Your task to perform on an android device: Set the phone to "Do not disturb". Image 0: 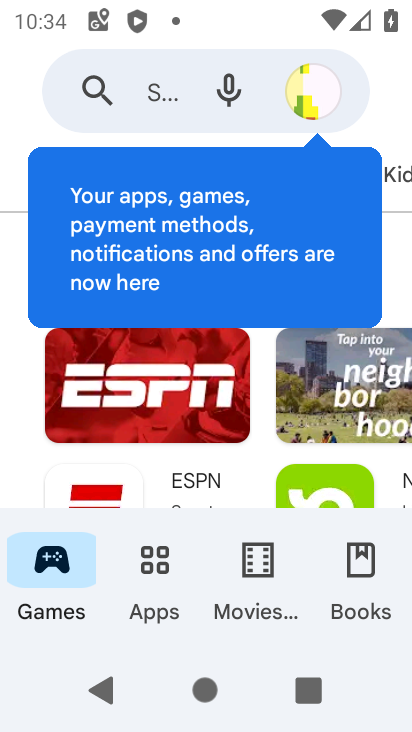
Step 0: press home button
Your task to perform on an android device: Set the phone to "Do not disturb". Image 1: 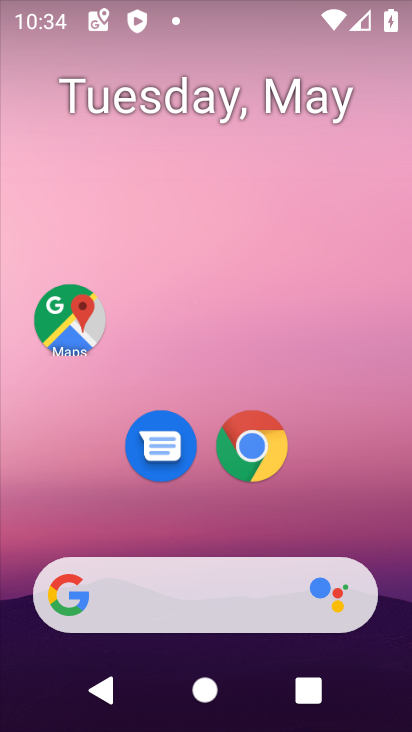
Step 1: drag from (216, 526) to (302, 85)
Your task to perform on an android device: Set the phone to "Do not disturb". Image 2: 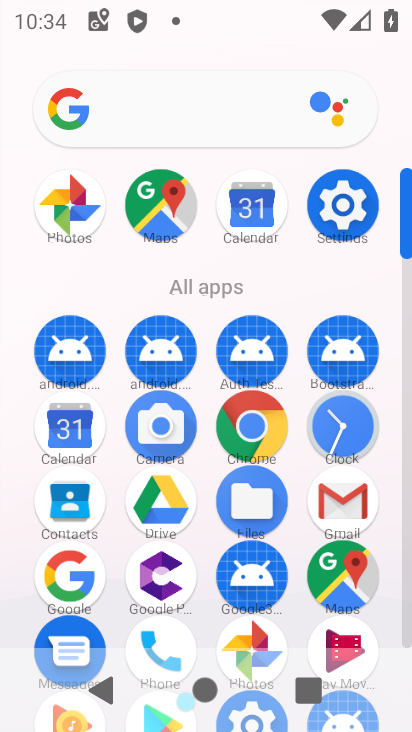
Step 2: click (350, 222)
Your task to perform on an android device: Set the phone to "Do not disturb". Image 3: 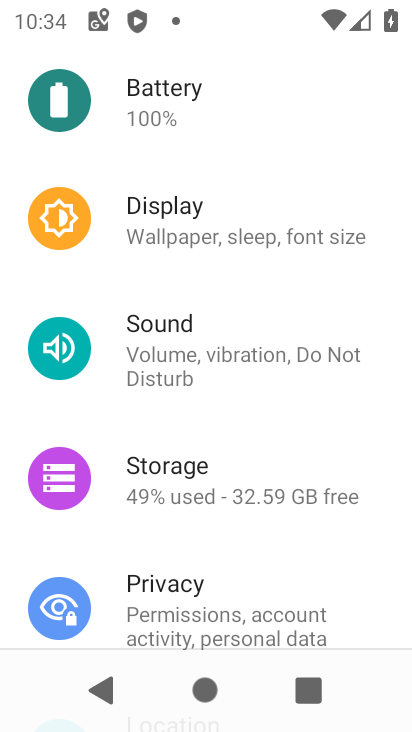
Step 3: click (168, 336)
Your task to perform on an android device: Set the phone to "Do not disturb". Image 4: 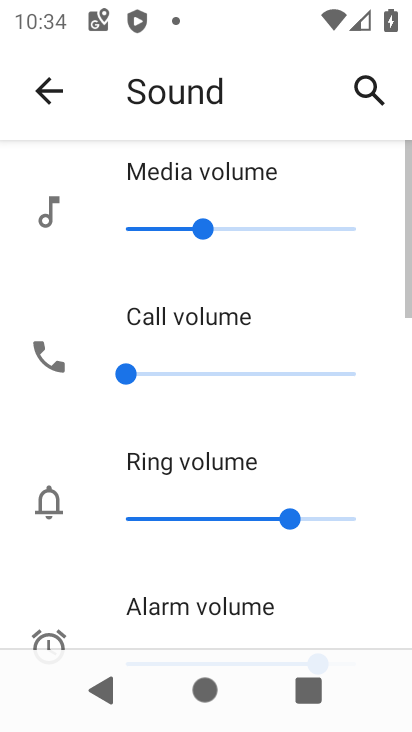
Step 4: drag from (189, 478) to (286, 113)
Your task to perform on an android device: Set the phone to "Do not disturb". Image 5: 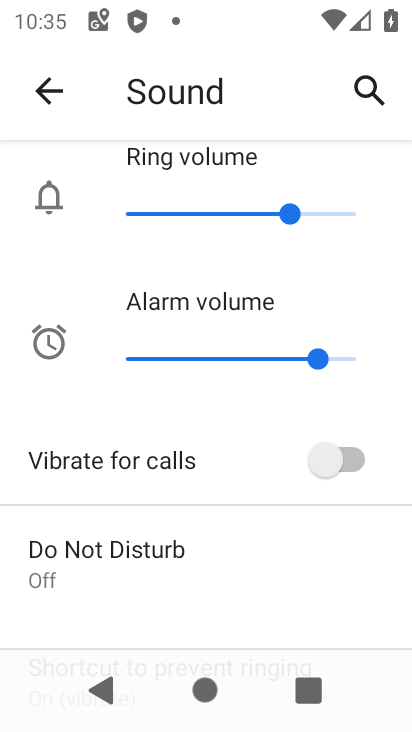
Step 5: drag from (149, 492) to (162, 406)
Your task to perform on an android device: Set the phone to "Do not disturb". Image 6: 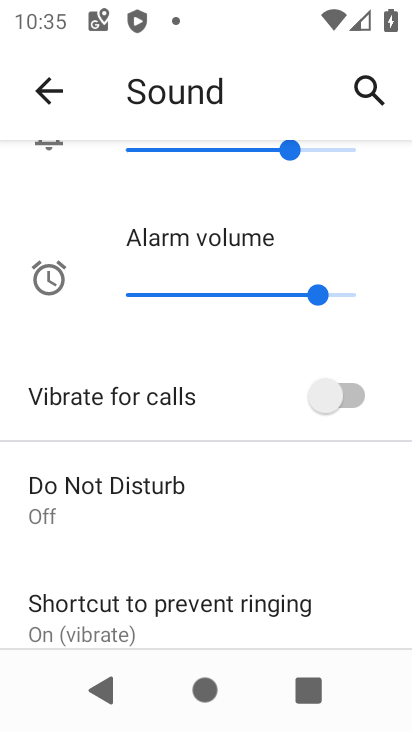
Step 6: click (123, 497)
Your task to perform on an android device: Set the phone to "Do not disturb". Image 7: 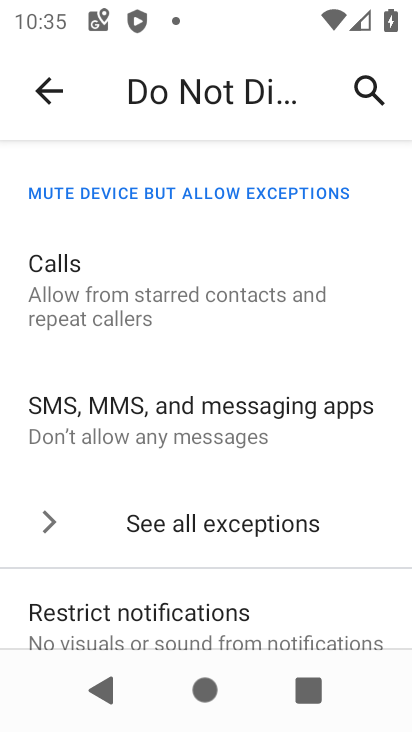
Step 7: drag from (198, 634) to (322, 156)
Your task to perform on an android device: Set the phone to "Do not disturb". Image 8: 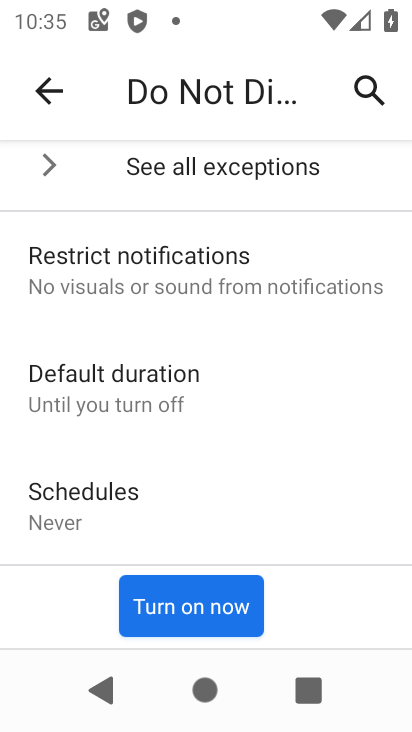
Step 8: click (214, 603)
Your task to perform on an android device: Set the phone to "Do not disturb". Image 9: 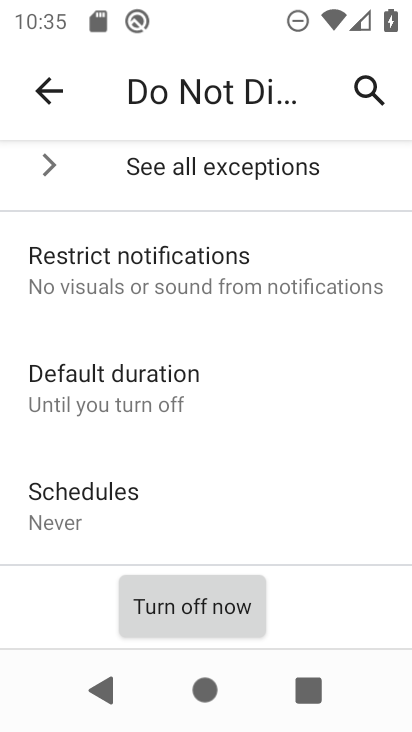
Step 9: task complete